Your task to perform on an android device: Go to battery settings Image 0: 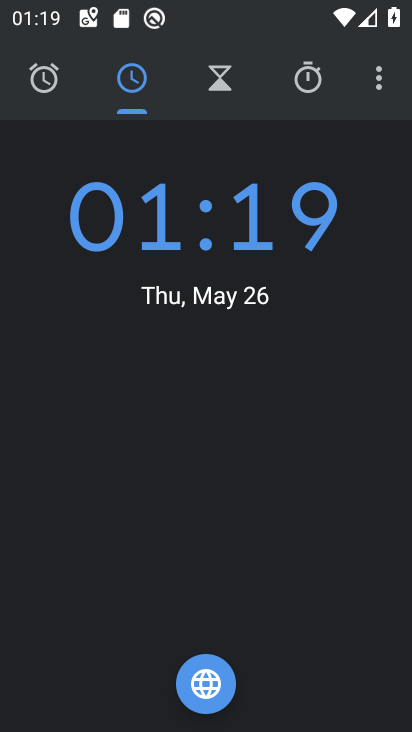
Step 0: press home button
Your task to perform on an android device: Go to battery settings Image 1: 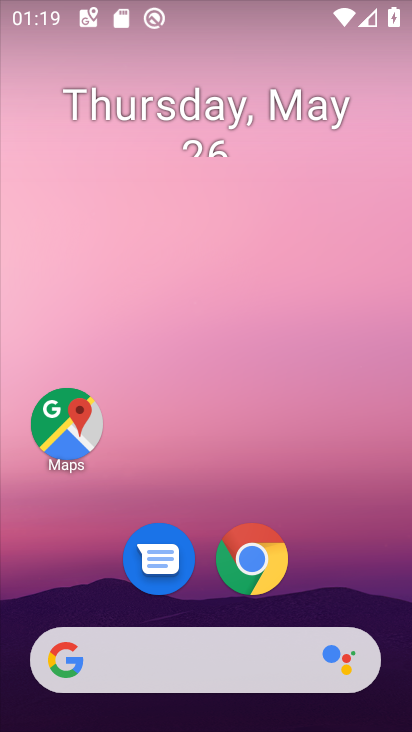
Step 1: drag from (369, 584) to (344, 264)
Your task to perform on an android device: Go to battery settings Image 2: 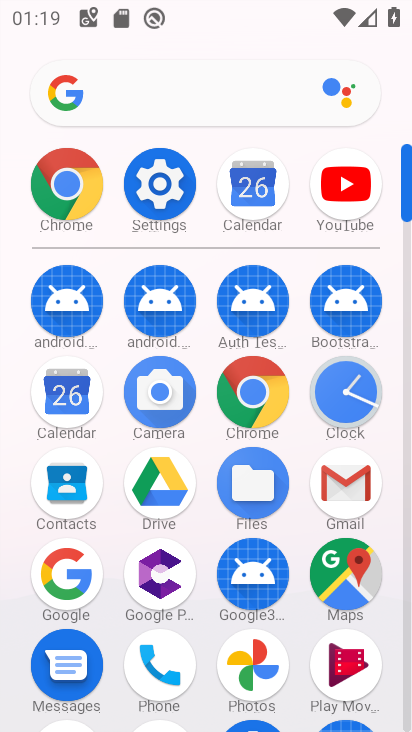
Step 2: click (167, 187)
Your task to perform on an android device: Go to battery settings Image 3: 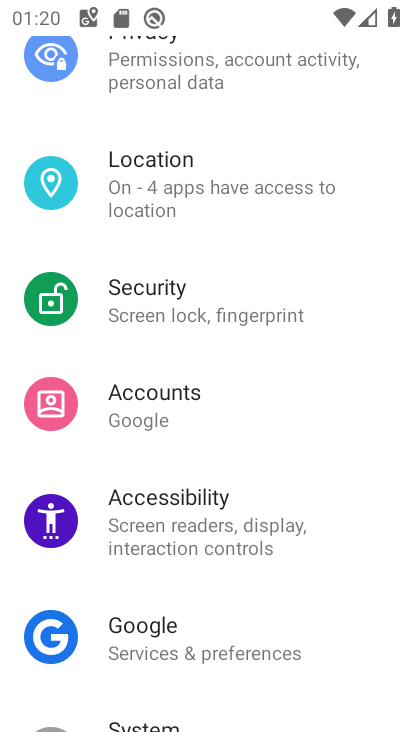
Step 3: drag from (279, 143) to (199, 695)
Your task to perform on an android device: Go to battery settings Image 4: 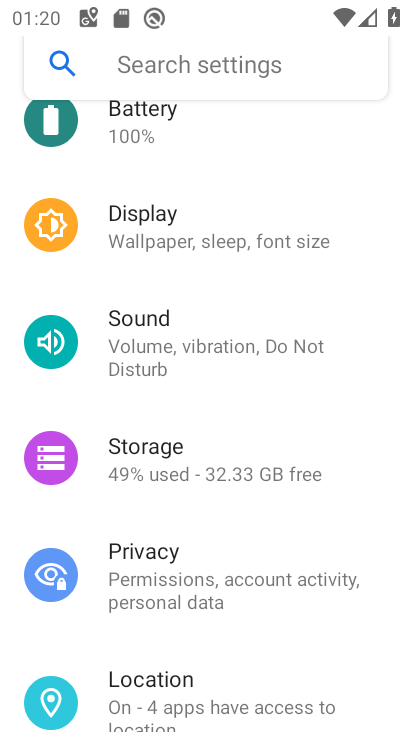
Step 4: click (142, 167)
Your task to perform on an android device: Go to battery settings Image 5: 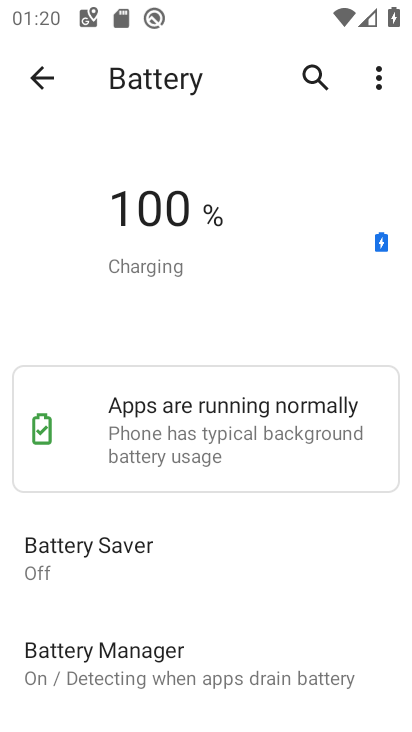
Step 5: click (377, 73)
Your task to perform on an android device: Go to battery settings Image 6: 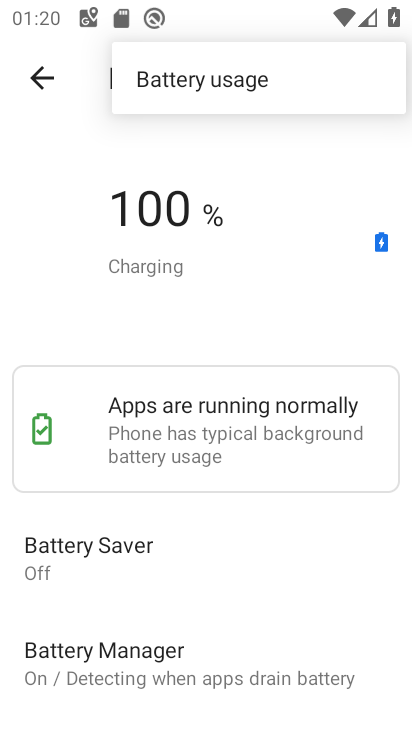
Step 6: task complete